Your task to perform on an android device: see tabs open on other devices in the chrome app Image 0: 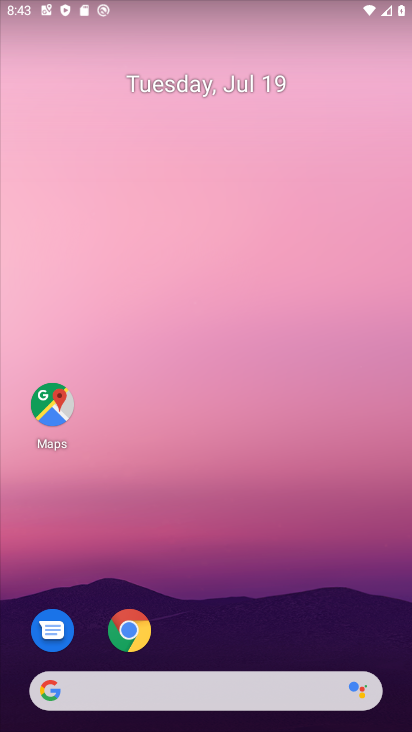
Step 0: drag from (212, 638) to (260, 232)
Your task to perform on an android device: see tabs open on other devices in the chrome app Image 1: 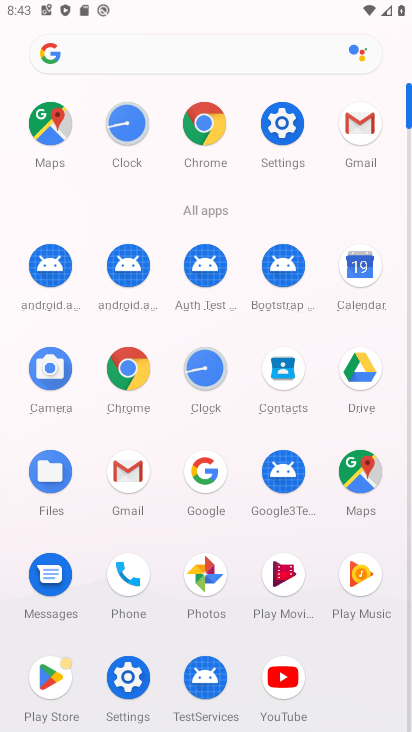
Step 1: click (128, 367)
Your task to perform on an android device: see tabs open on other devices in the chrome app Image 2: 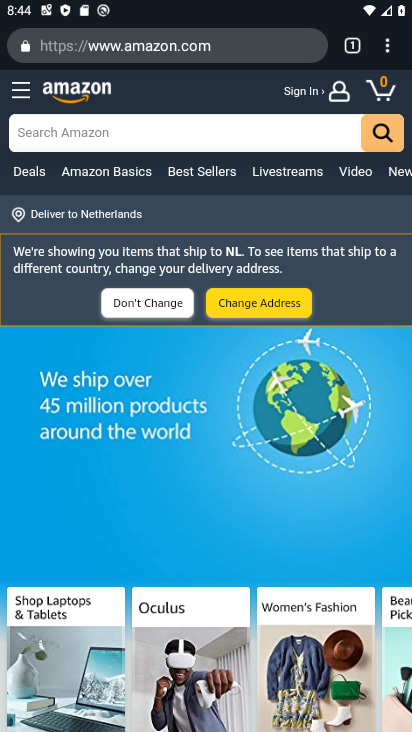
Step 2: click (383, 45)
Your task to perform on an android device: see tabs open on other devices in the chrome app Image 3: 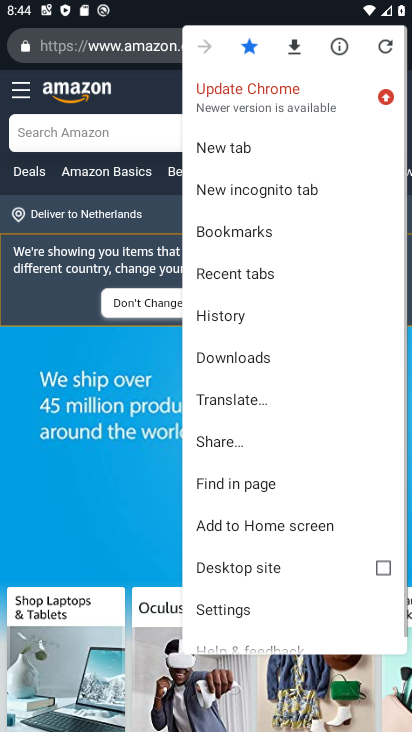
Step 3: click (265, 273)
Your task to perform on an android device: see tabs open on other devices in the chrome app Image 4: 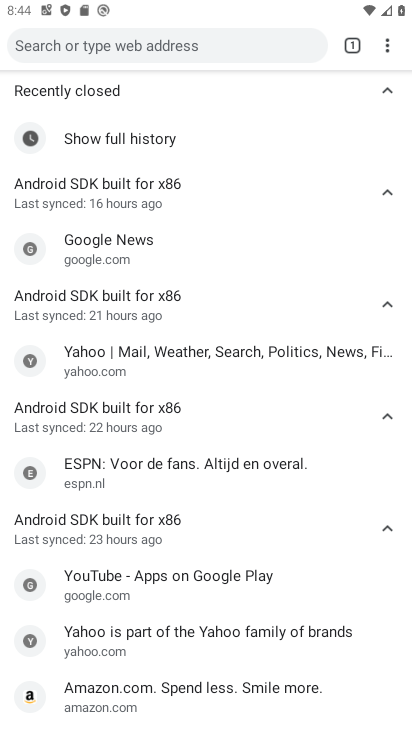
Step 4: task complete